Your task to perform on an android device: check the backup settings in the google photos Image 0: 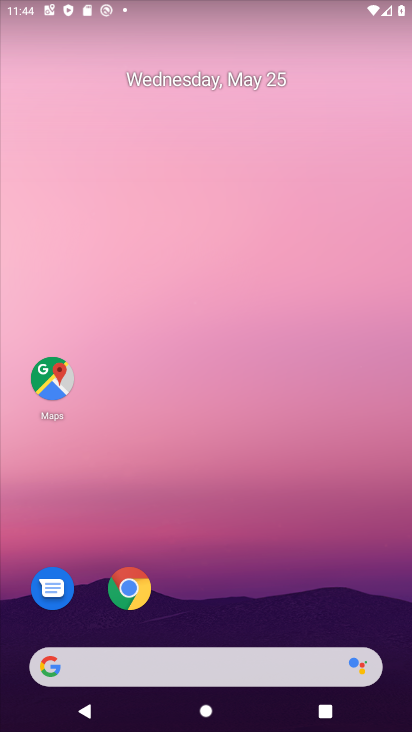
Step 0: drag from (253, 560) to (239, 17)
Your task to perform on an android device: check the backup settings in the google photos Image 1: 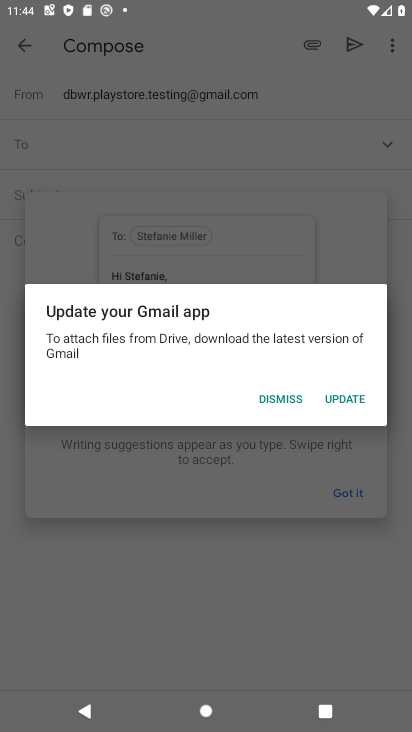
Step 1: press home button
Your task to perform on an android device: check the backup settings in the google photos Image 2: 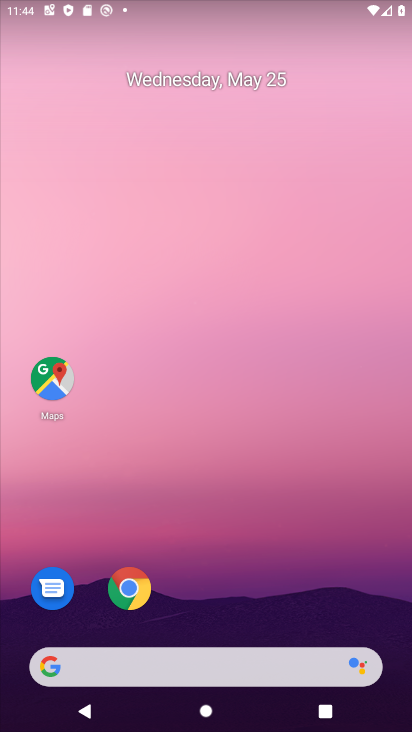
Step 2: drag from (211, 512) to (207, 0)
Your task to perform on an android device: check the backup settings in the google photos Image 3: 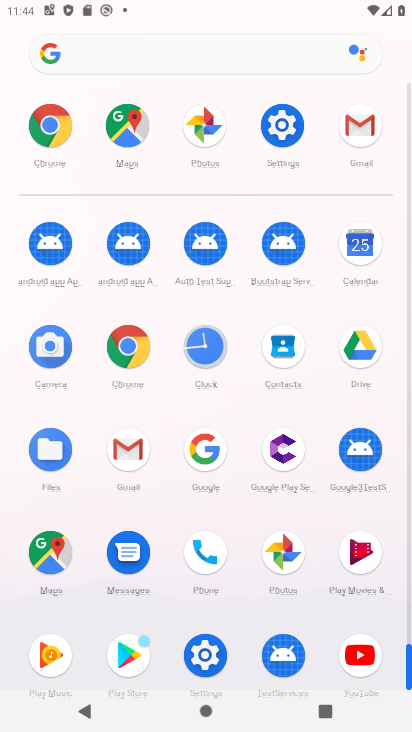
Step 3: click (281, 548)
Your task to perform on an android device: check the backup settings in the google photos Image 4: 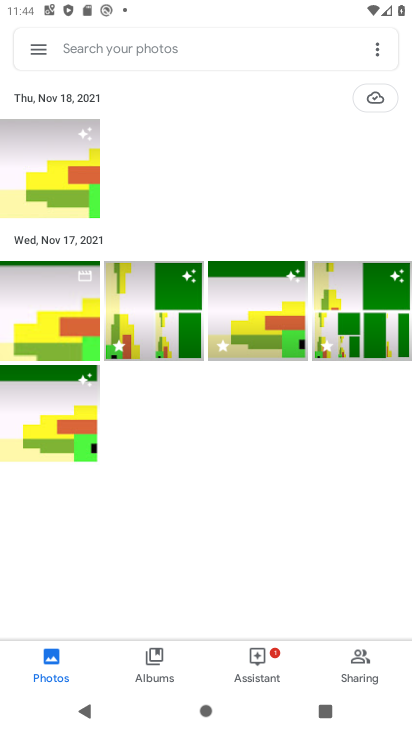
Step 4: task complete